Your task to perform on an android device: Open location settings Image 0: 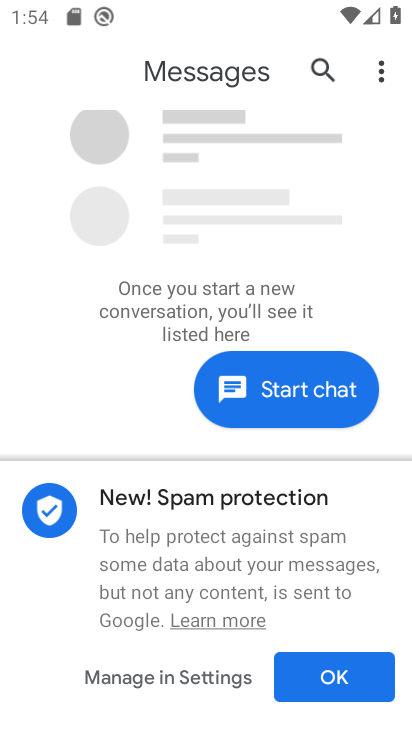
Step 0: press home button
Your task to perform on an android device: Open location settings Image 1: 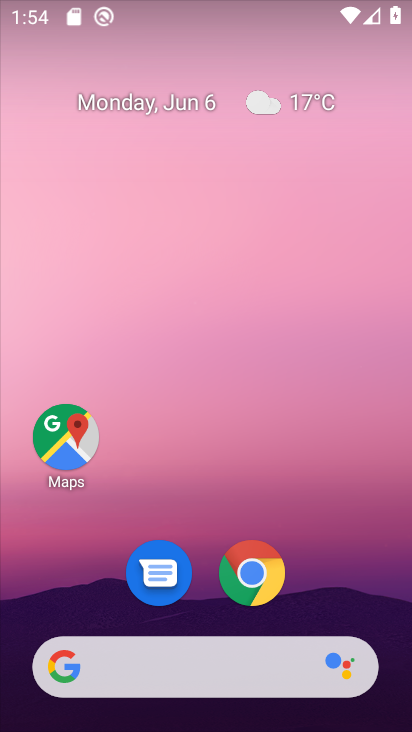
Step 1: drag from (399, 673) to (309, 112)
Your task to perform on an android device: Open location settings Image 2: 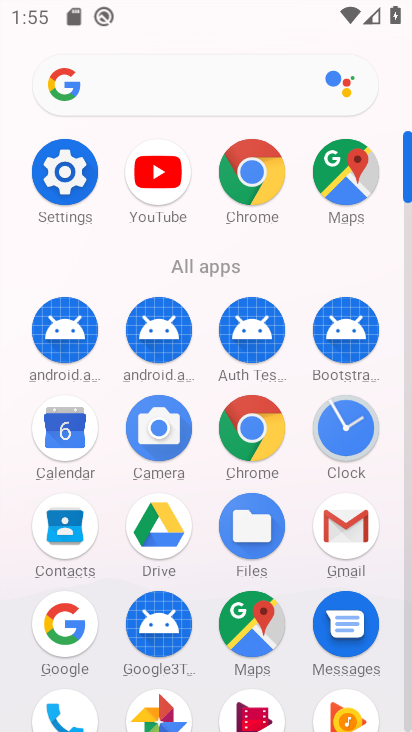
Step 2: click (55, 162)
Your task to perform on an android device: Open location settings Image 3: 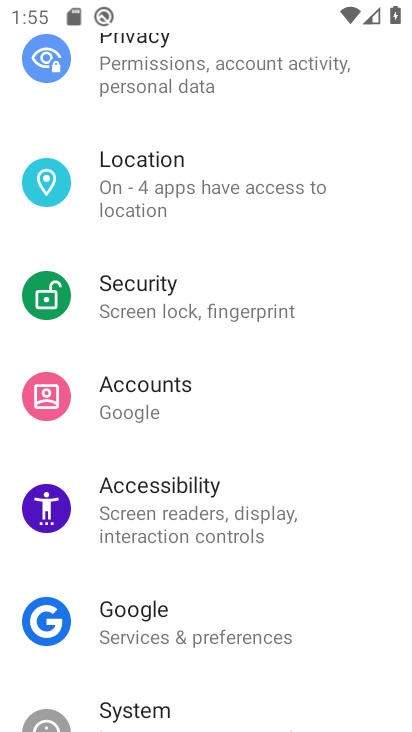
Step 3: click (175, 181)
Your task to perform on an android device: Open location settings Image 4: 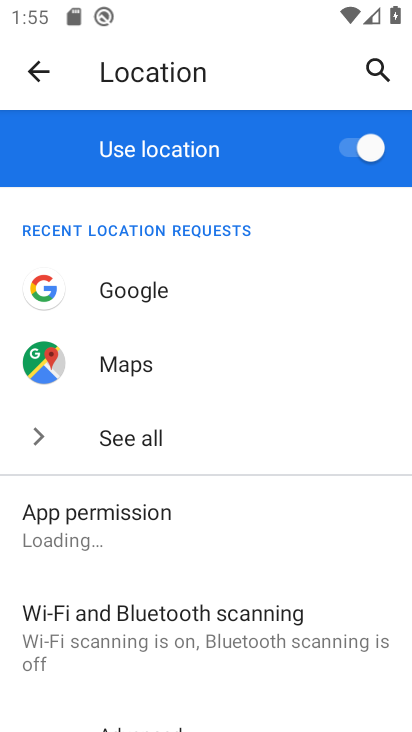
Step 4: task complete